Your task to perform on an android device: Turn off the flashlight Image 0: 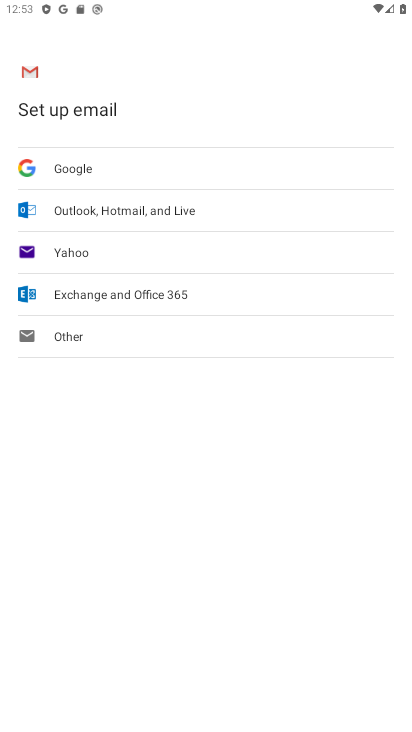
Step 0: press home button
Your task to perform on an android device: Turn off the flashlight Image 1: 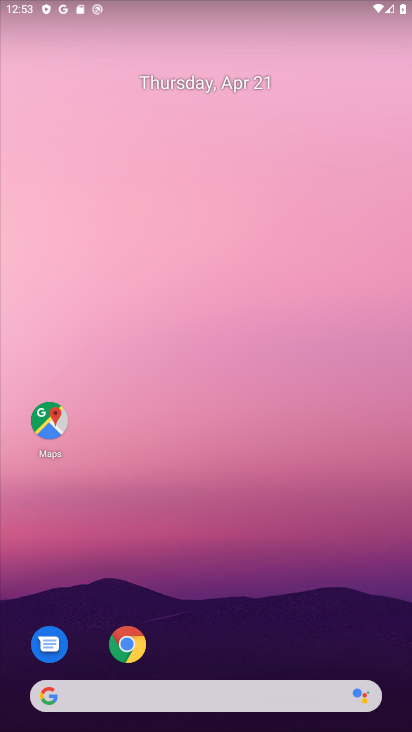
Step 1: drag from (309, 4) to (350, 510)
Your task to perform on an android device: Turn off the flashlight Image 2: 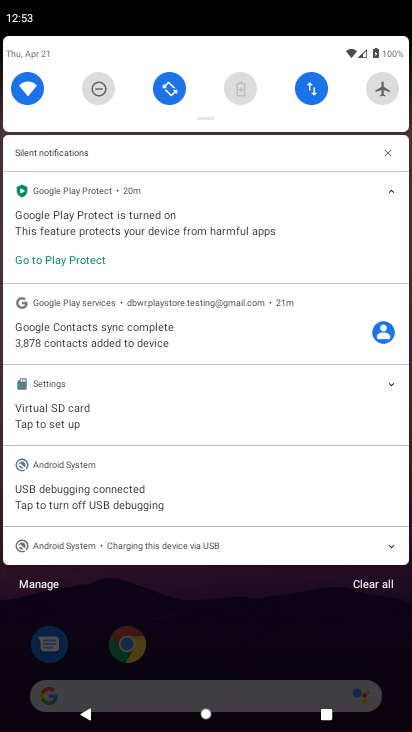
Step 2: drag from (270, 104) to (296, 705)
Your task to perform on an android device: Turn off the flashlight Image 3: 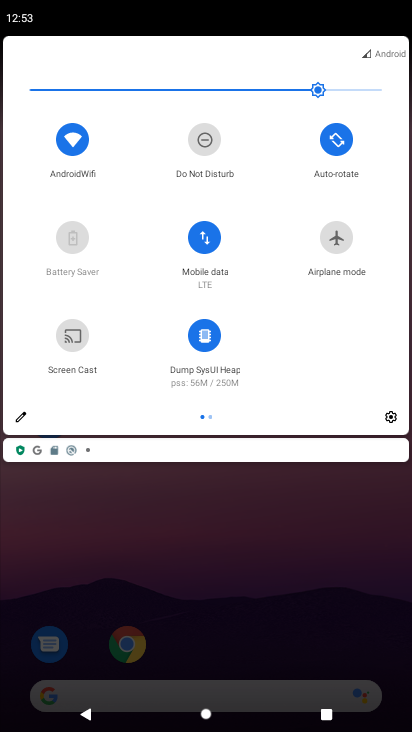
Step 3: drag from (367, 366) to (0, 365)
Your task to perform on an android device: Turn off the flashlight Image 4: 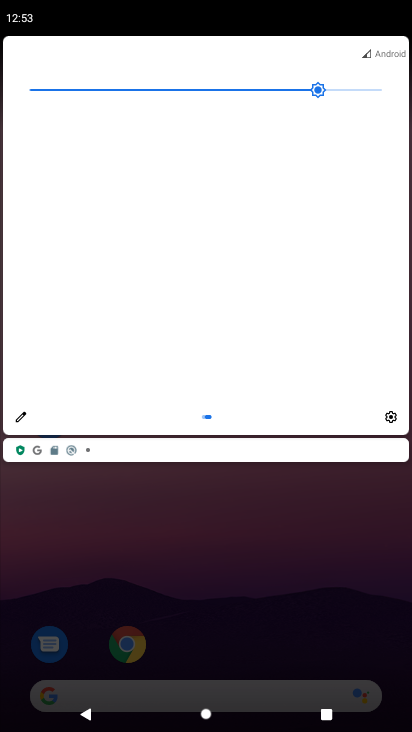
Step 4: click (27, 409)
Your task to perform on an android device: Turn off the flashlight Image 5: 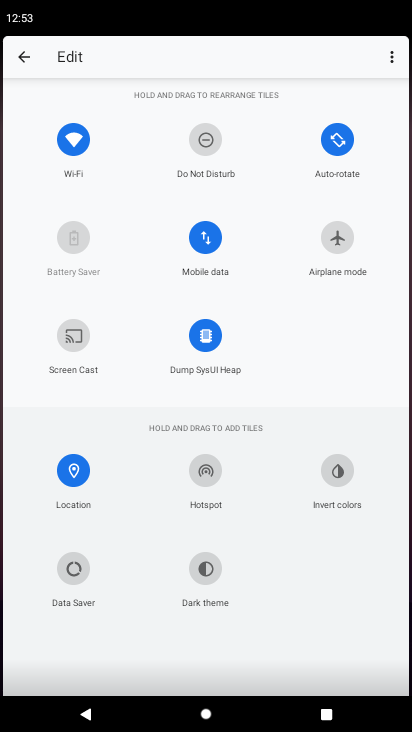
Step 5: task complete